Your task to perform on an android device: Show me the alarms in the clock app Image 0: 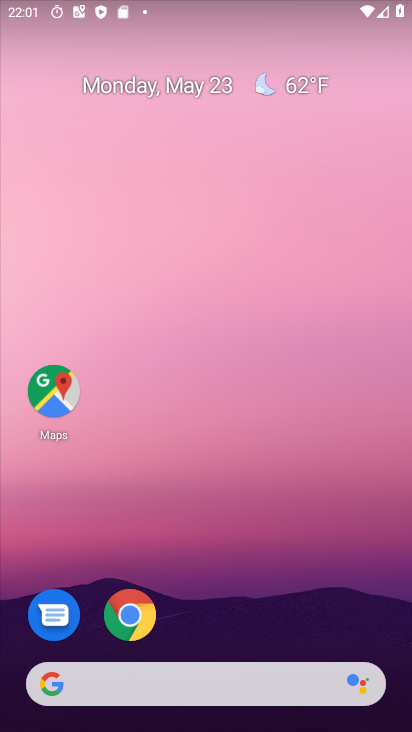
Step 0: drag from (223, 624) to (228, 159)
Your task to perform on an android device: Show me the alarms in the clock app Image 1: 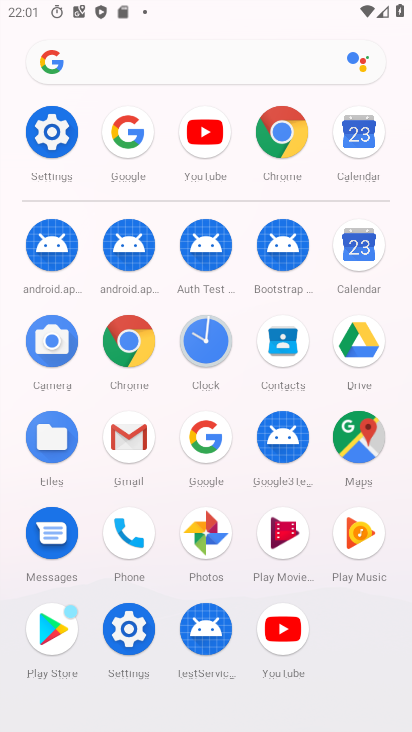
Step 1: click (204, 339)
Your task to perform on an android device: Show me the alarms in the clock app Image 2: 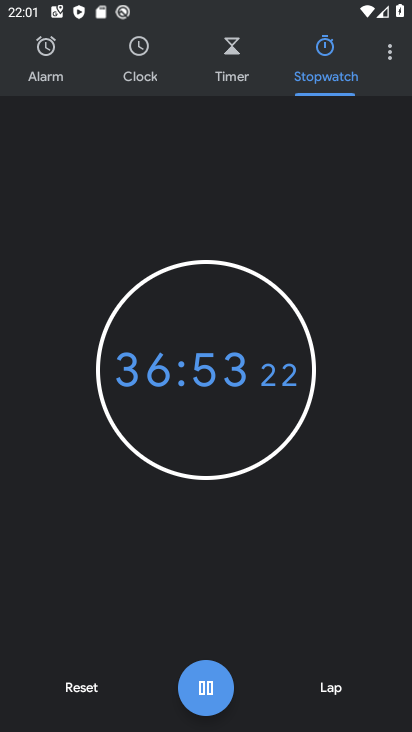
Step 2: click (47, 75)
Your task to perform on an android device: Show me the alarms in the clock app Image 3: 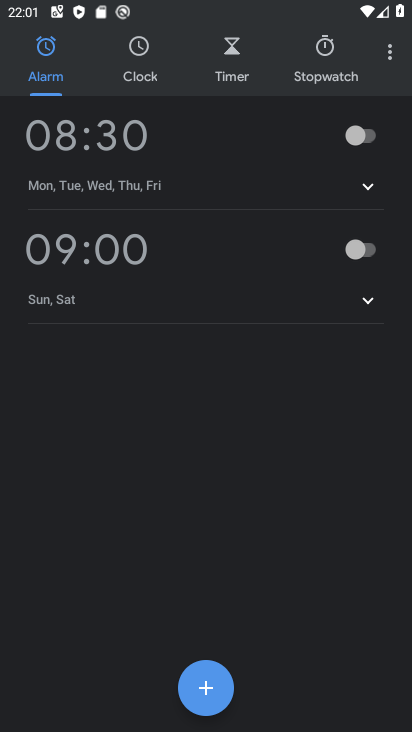
Step 3: task complete